Your task to perform on an android device: stop showing notifications on the lock screen Image 0: 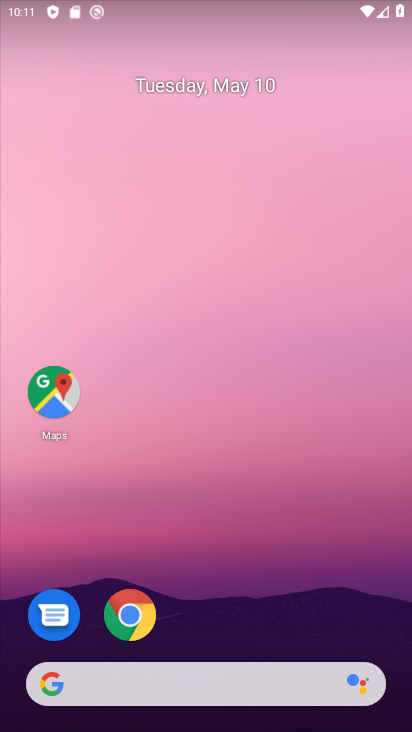
Step 0: drag from (275, 591) to (232, 89)
Your task to perform on an android device: stop showing notifications on the lock screen Image 1: 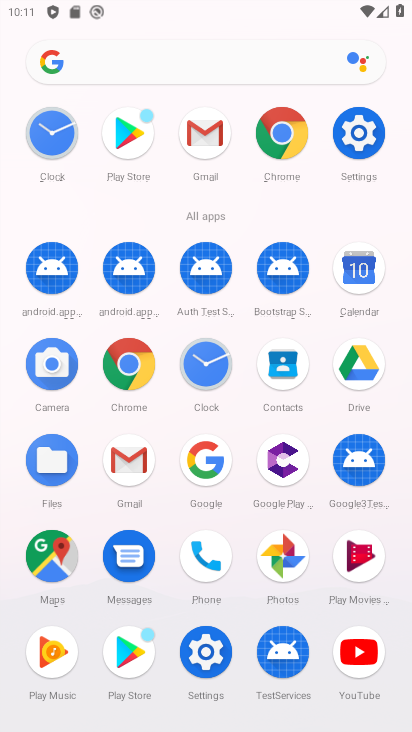
Step 1: click (358, 134)
Your task to perform on an android device: stop showing notifications on the lock screen Image 2: 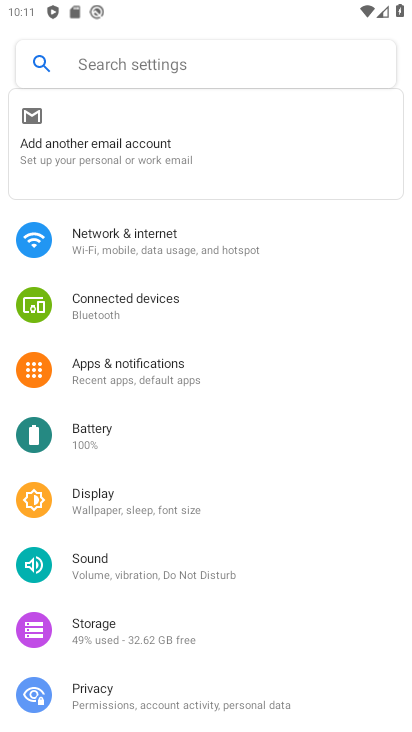
Step 2: drag from (159, 475) to (175, 389)
Your task to perform on an android device: stop showing notifications on the lock screen Image 3: 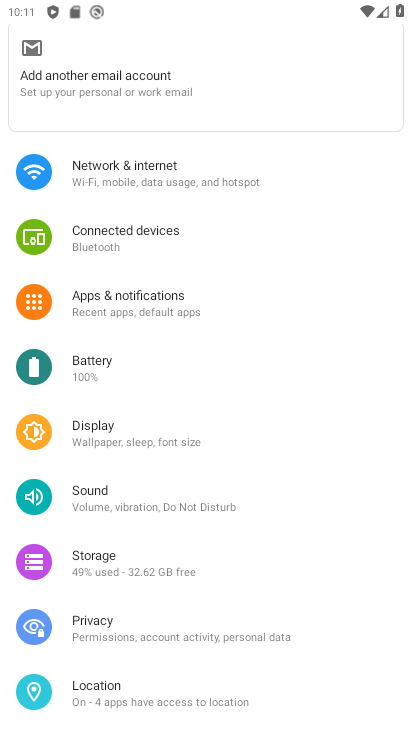
Step 3: drag from (155, 465) to (187, 371)
Your task to perform on an android device: stop showing notifications on the lock screen Image 4: 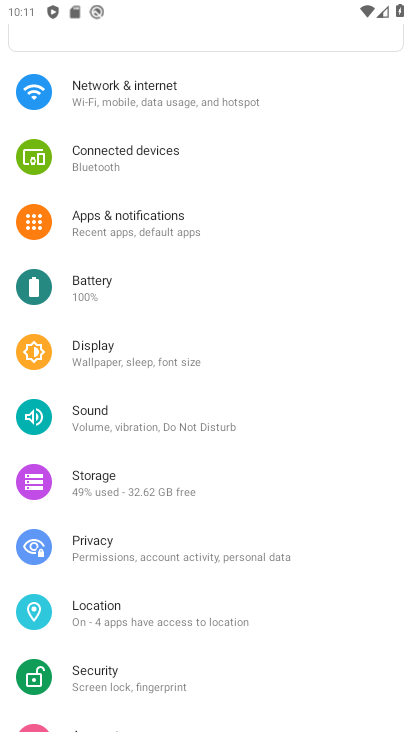
Step 4: click (169, 227)
Your task to perform on an android device: stop showing notifications on the lock screen Image 5: 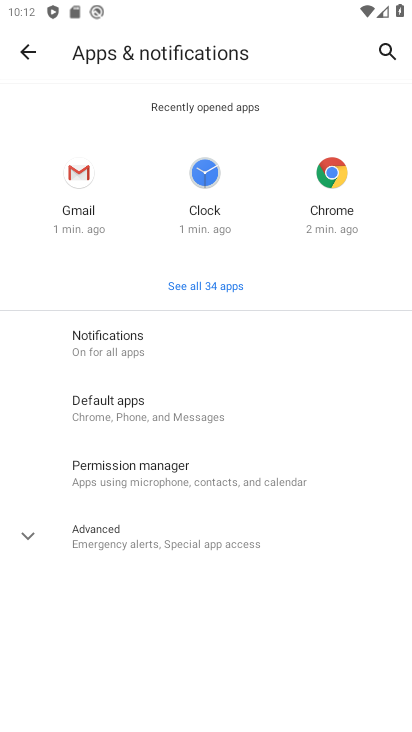
Step 5: click (126, 339)
Your task to perform on an android device: stop showing notifications on the lock screen Image 6: 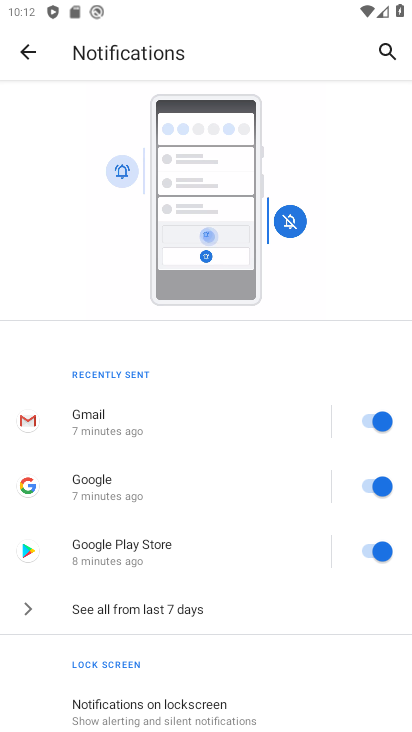
Step 6: drag from (127, 478) to (159, 377)
Your task to perform on an android device: stop showing notifications on the lock screen Image 7: 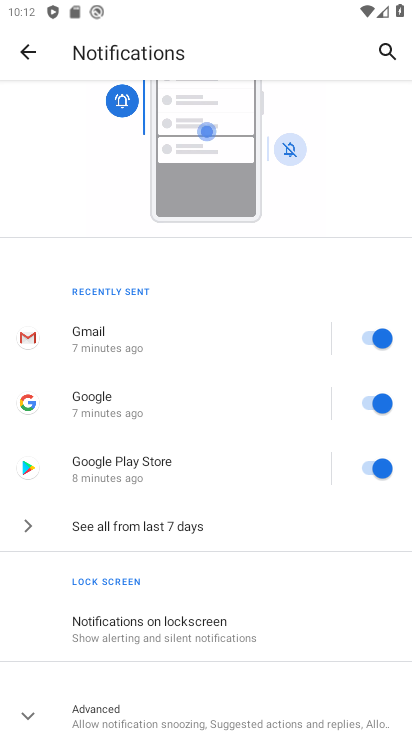
Step 7: click (134, 612)
Your task to perform on an android device: stop showing notifications on the lock screen Image 8: 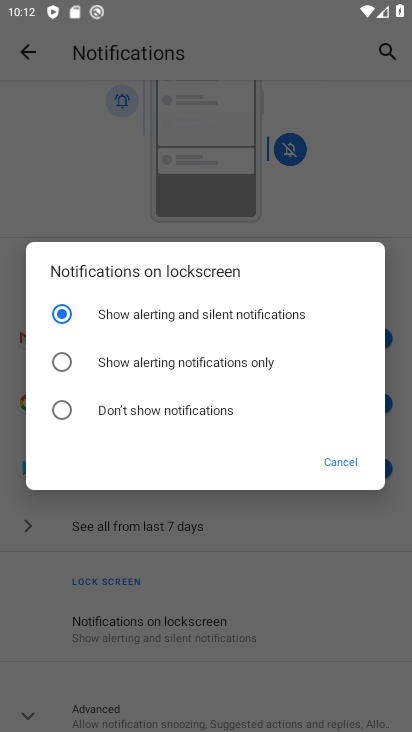
Step 8: click (62, 409)
Your task to perform on an android device: stop showing notifications on the lock screen Image 9: 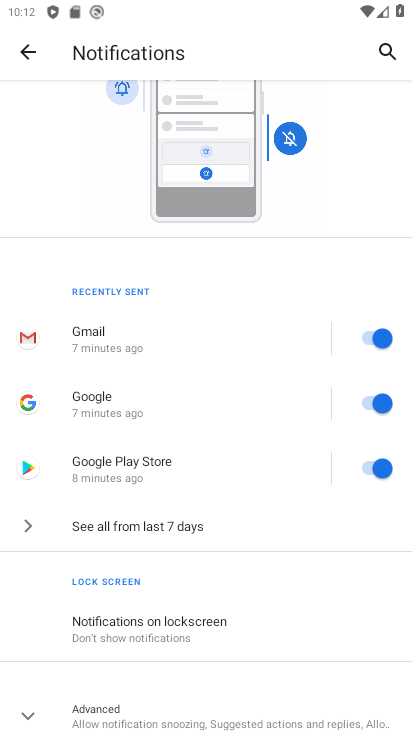
Step 9: task complete